Your task to perform on an android device: turn notification dots on Image 0: 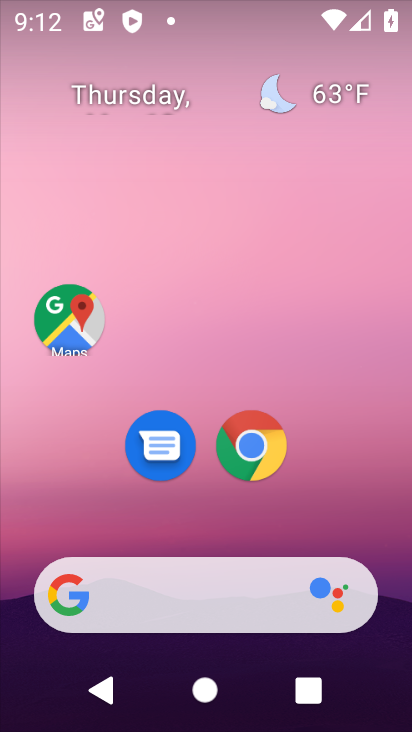
Step 0: drag from (228, 560) to (301, 27)
Your task to perform on an android device: turn notification dots on Image 1: 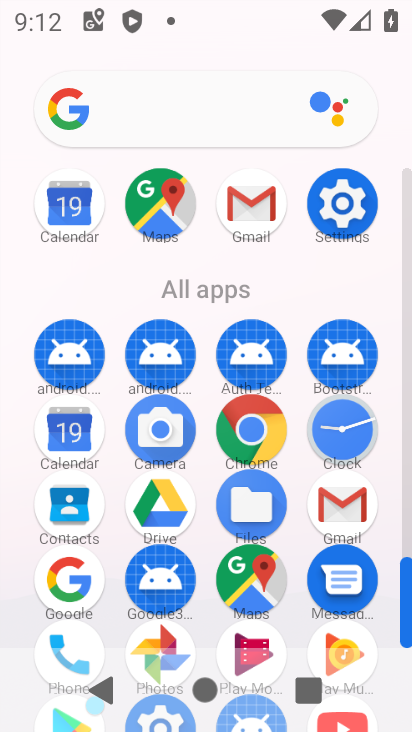
Step 1: click (333, 223)
Your task to perform on an android device: turn notification dots on Image 2: 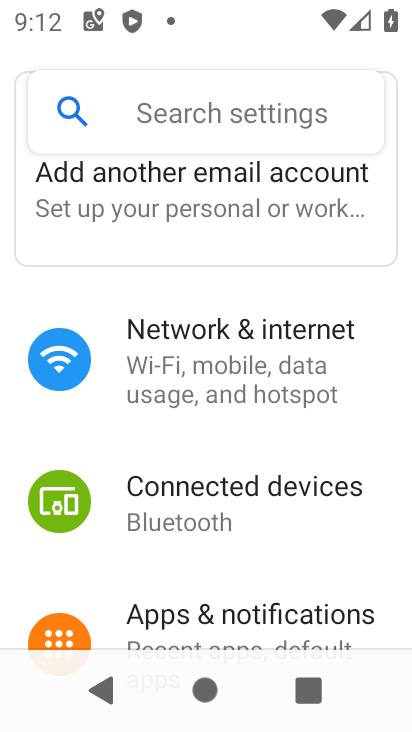
Step 2: click (279, 620)
Your task to perform on an android device: turn notification dots on Image 3: 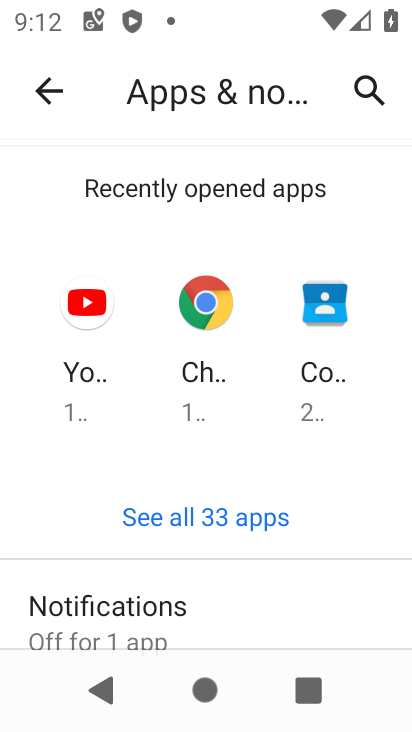
Step 3: click (130, 600)
Your task to perform on an android device: turn notification dots on Image 4: 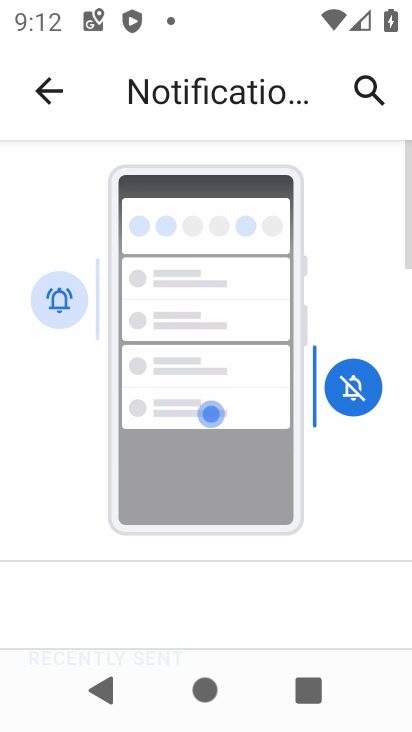
Step 4: drag from (171, 599) to (253, 211)
Your task to perform on an android device: turn notification dots on Image 5: 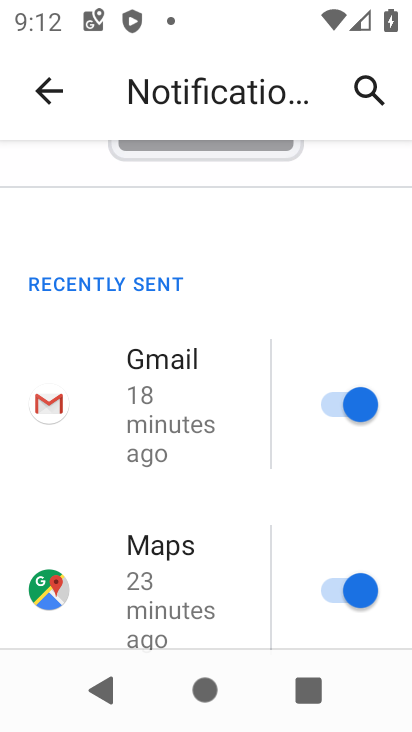
Step 5: drag from (218, 489) to (277, 169)
Your task to perform on an android device: turn notification dots on Image 6: 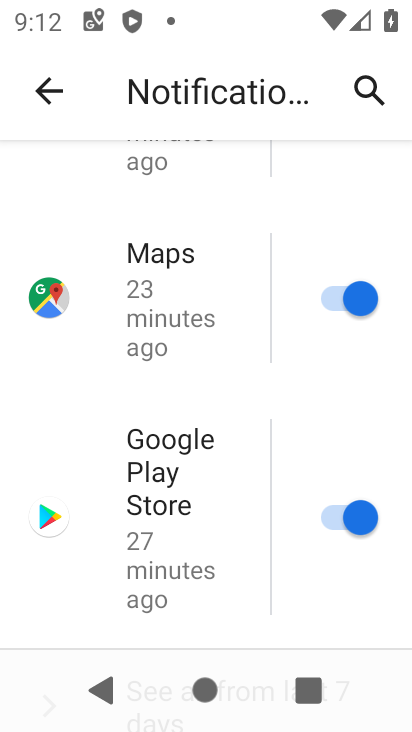
Step 6: drag from (193, 529) to (251, 54)
Your task to perform on an android device: turn notification dots on Image 7: 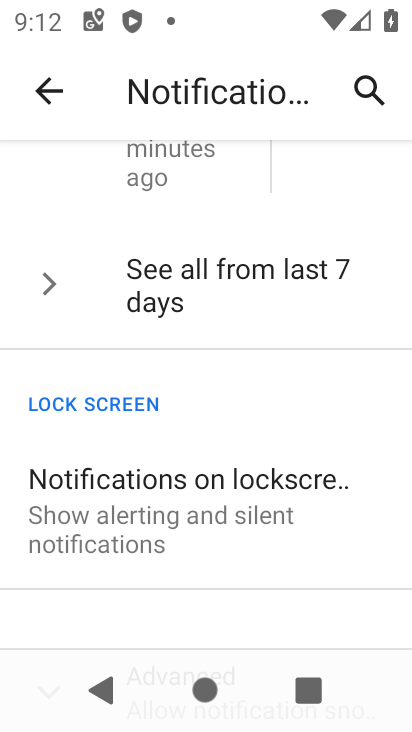
Step 7: drag from (200, 486) to (231, 156)
Your task to perform on an android device: turn notification dots on Image 8: 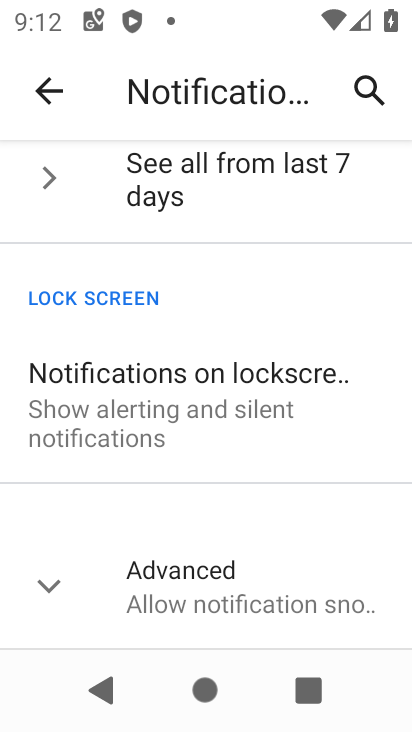
Step 8: click (168, 572)
Your task to perform on an android device: turn notification dots on Image 9: 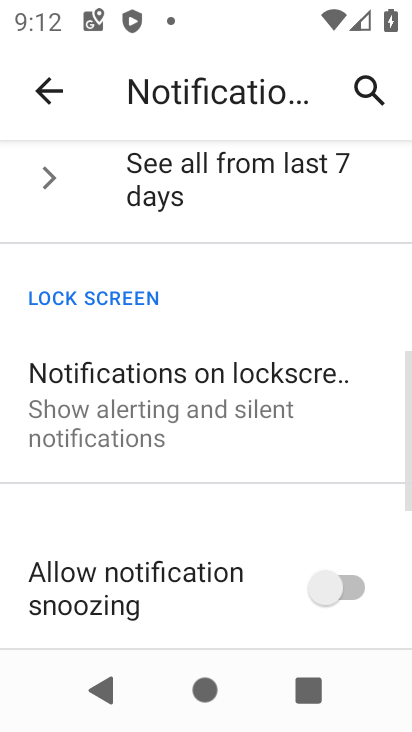
Step 9: task complete